Your task to perform on an android device: uninstall "Calculator" Image 0: 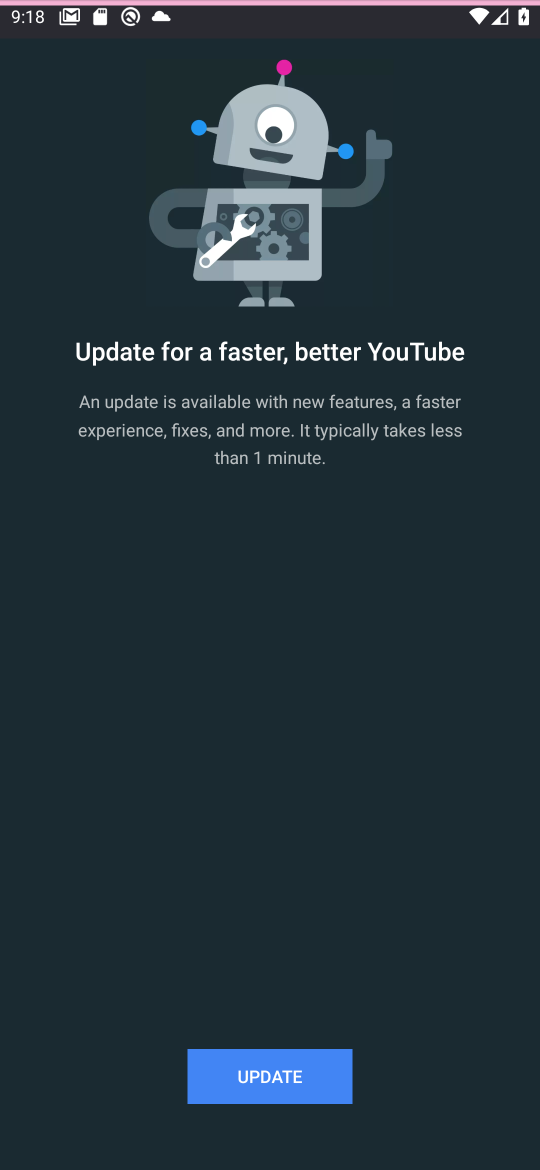
Step 0: press home button
Your task to perform on an android device: uninstall "Calculator" Image 1: 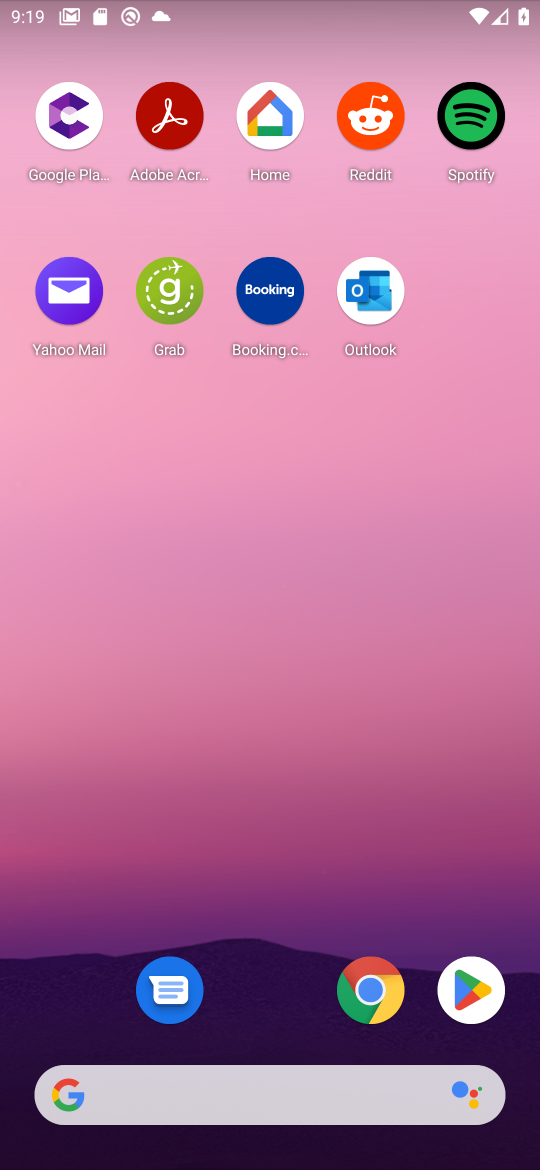
Step 1: click (491, 970)
Your task to perform on an android device: uninstall "Calculator" Image 2: 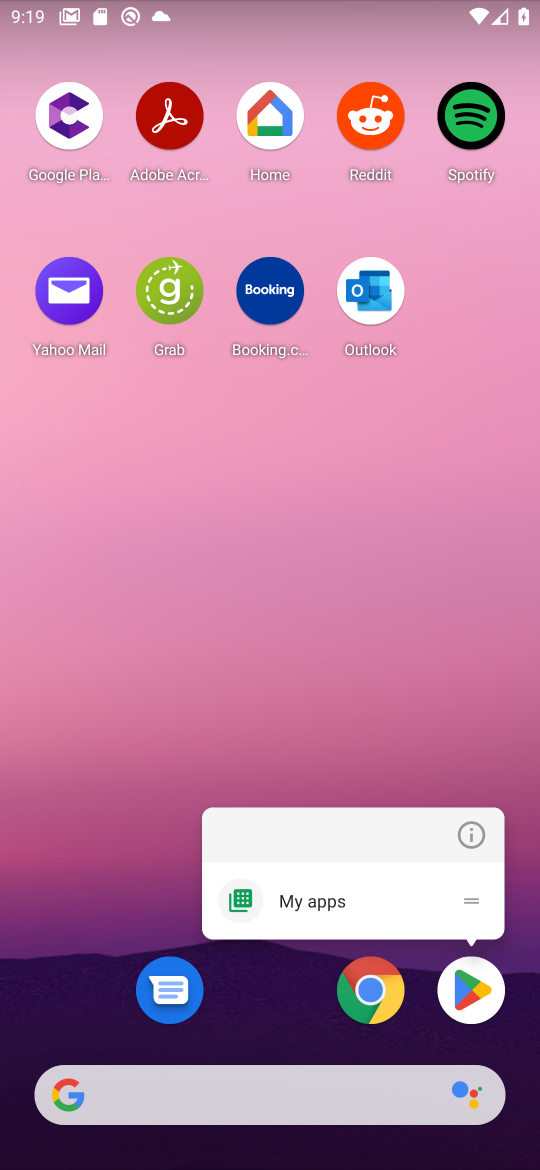
Step 2: click (466, 993)
Your task to perform on an android device: uninstall "Calculator" Image 3: 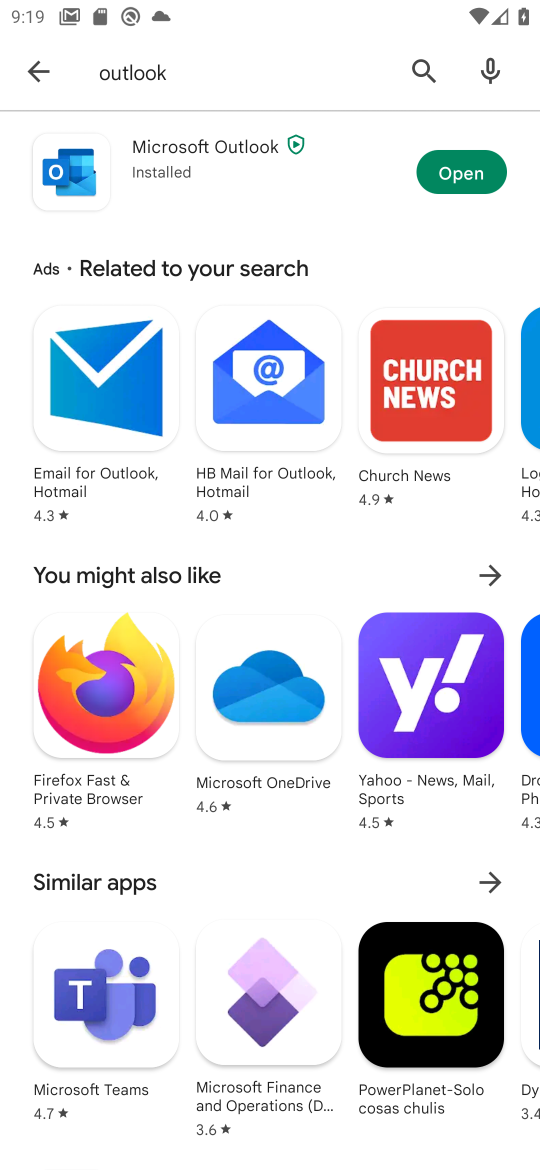
Step 3: click (416, 60)
Your task to perform on an android device: uninstall "Calculator" Image 4: 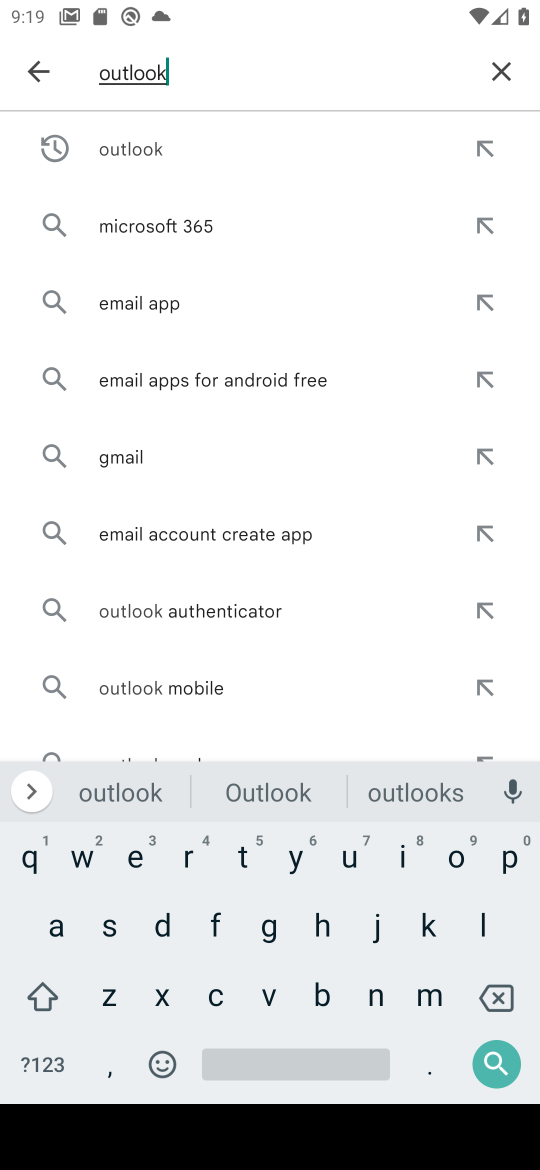
Step 4: click (497, 73)
Your task to perform on an android device: uninstall "Calculator" Image 5: 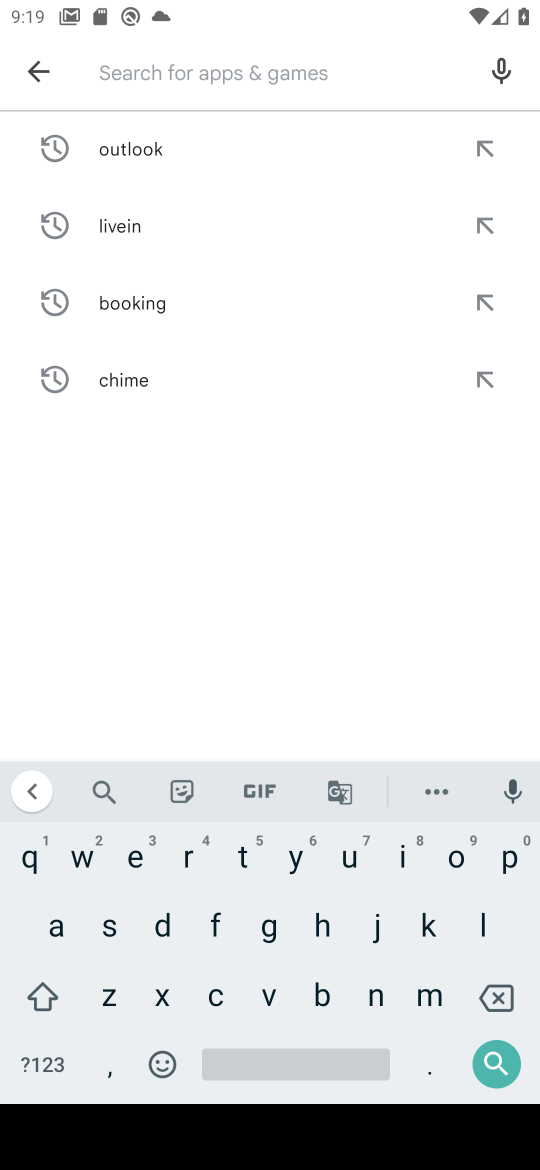
Step 5: click (204, 980)
Your task to perform on an android device: uninstall "Calculator" Image 6: 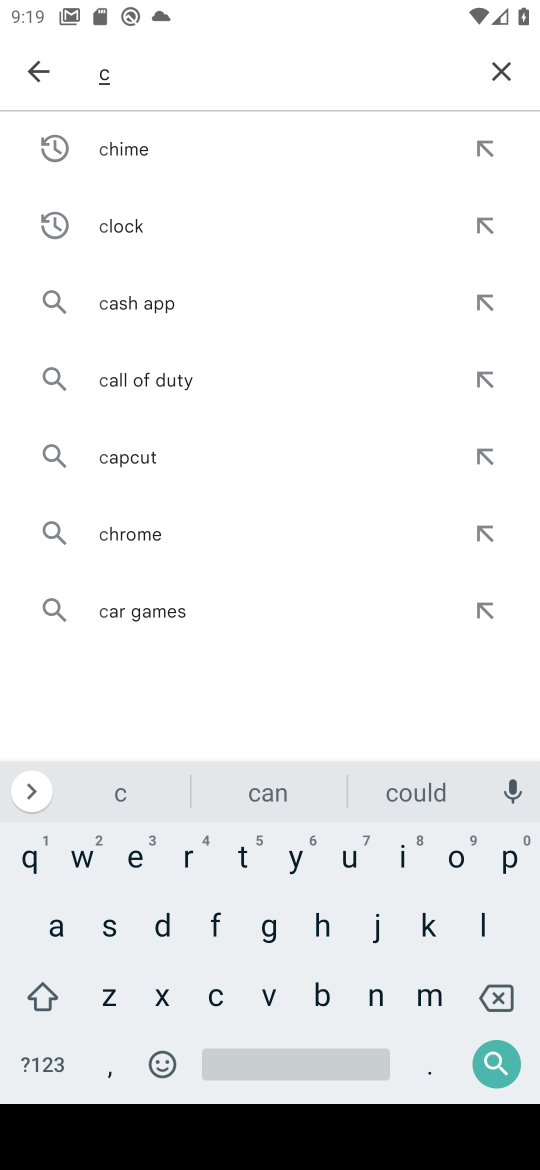
Step 6: click (50, 924)
Your task to perform on an android device: uninstall "Calculator" Image 7: 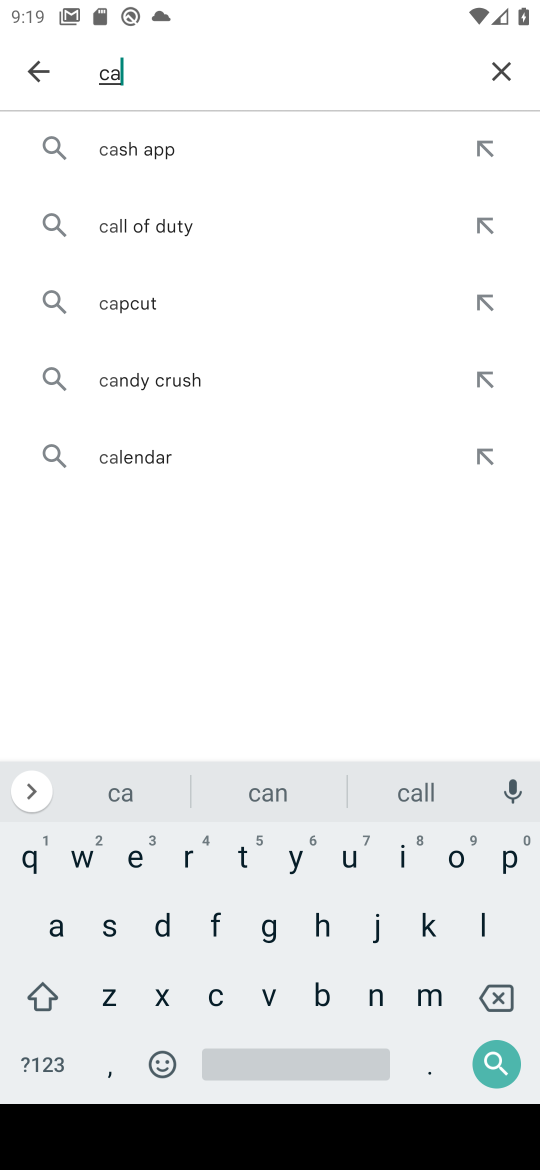
Step 7: click (480, 920)
Your task to perform on an android device: uninstall "Calculator" Image 8: 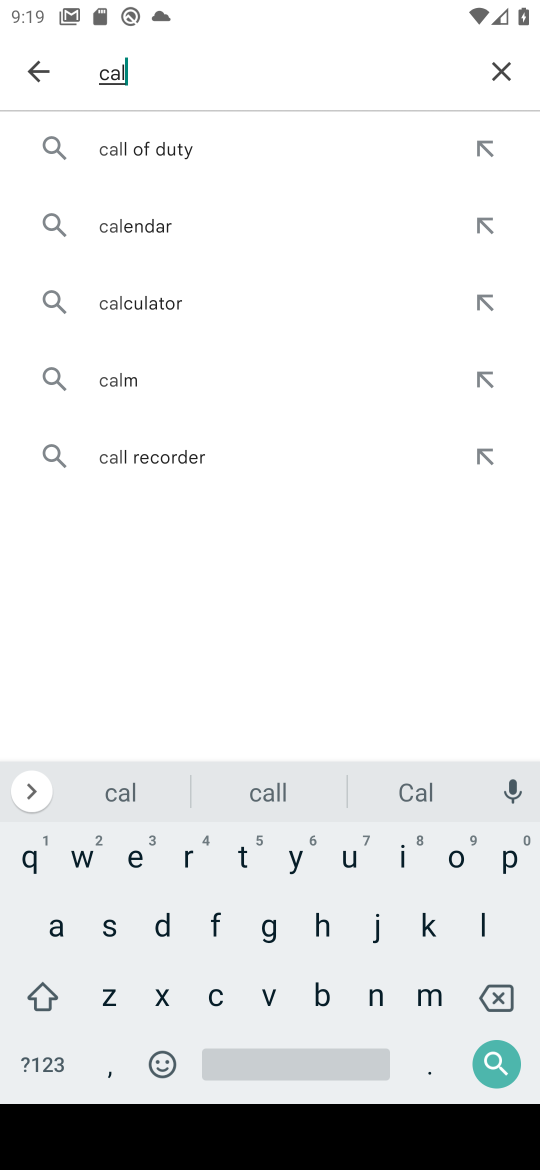
Step 8: click (220, 1003)
Your task to perform on an android device: uninstall "Calculator" Image 9: 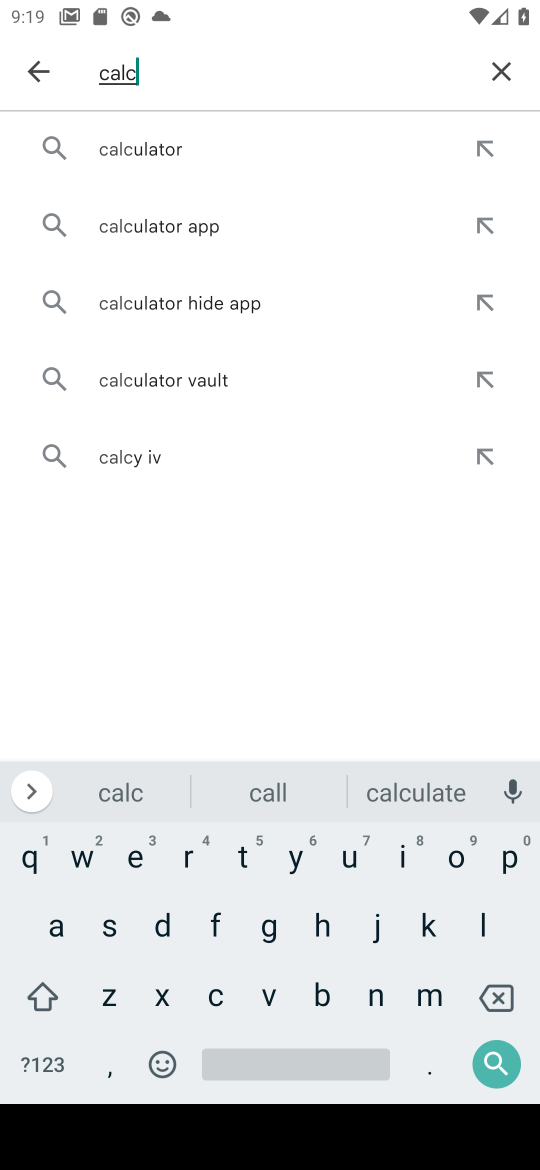
Step 9: click (172, 145)
Your task to perform on an android device: uninstall "Calculator" Image 10: 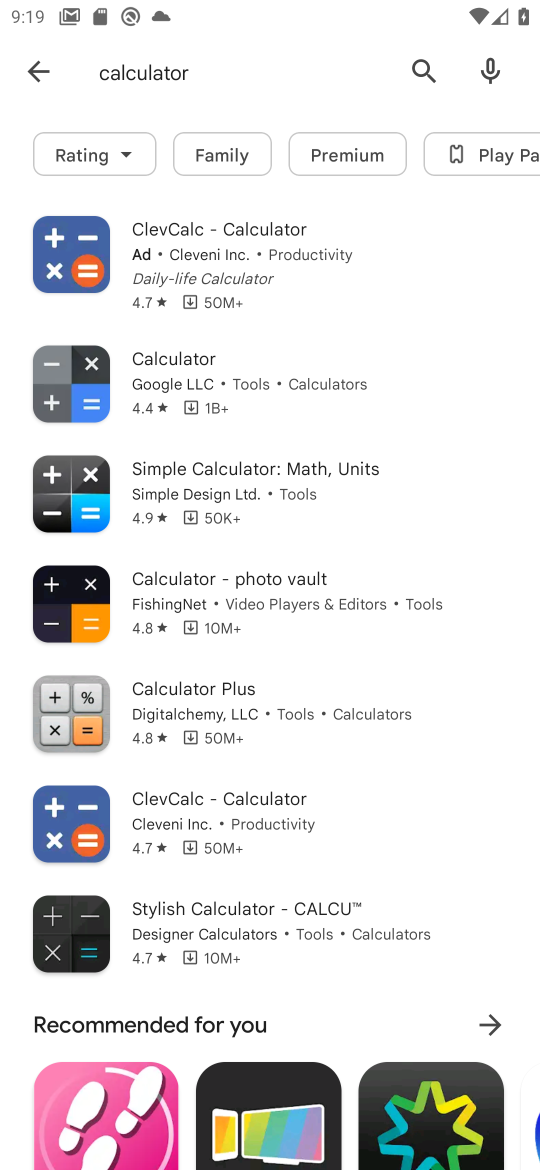
Step 10: click (219, 383)
Your task to perform on an android device: uninstall "Calculator" Image 11: 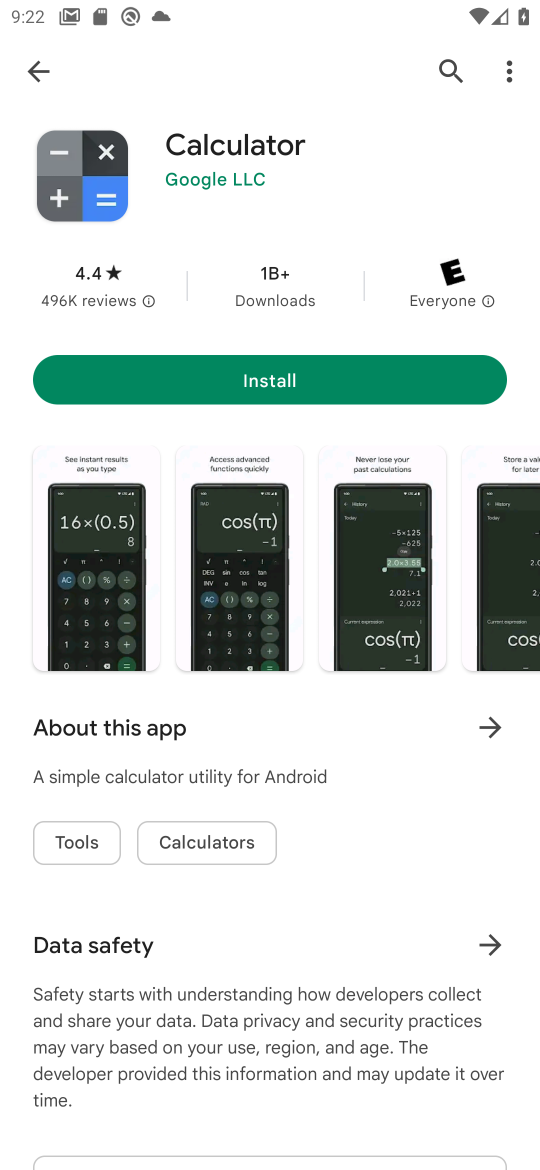
Step 11: task complete